Your task to perform on an android device: Open the phone app and click the voicemail tab. Image 0: 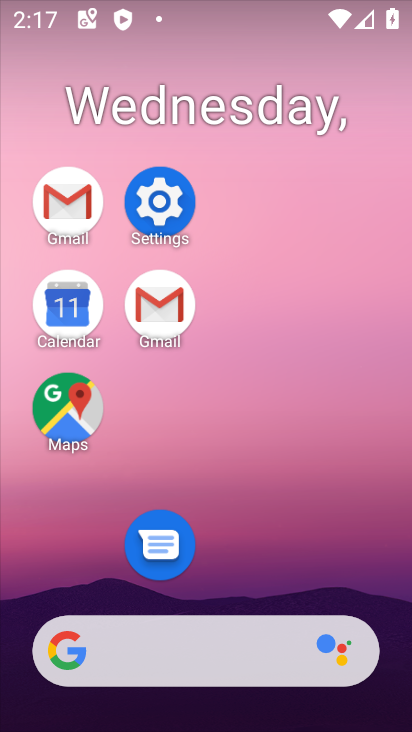
Step 0: drag from (287, 595) to (281, 234)
Your task to perform on an android device: Open the phone app and click the voicemail tab. Image 1: 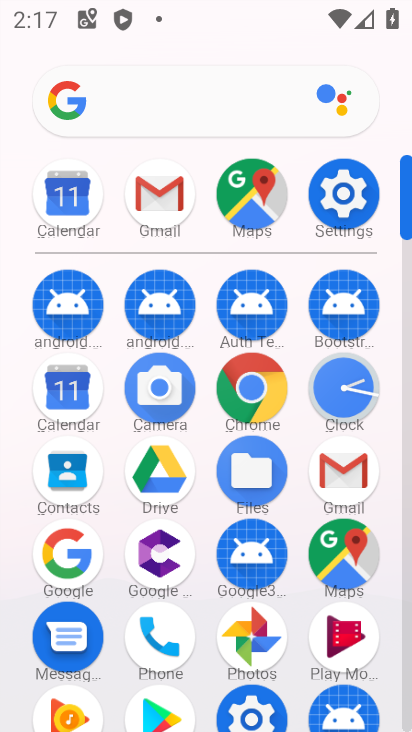
Step 1: click (159, 619)
Your task to perform on an android device: Open the phone app and click the voicemail tab. Image 2: 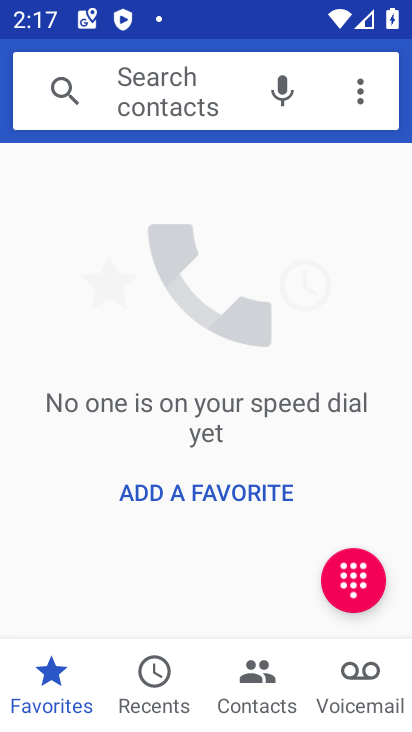
Step 2: click (372, 708)
Your task to perform on an android device: Open the phone app and click the voicemail tab. Image 3: 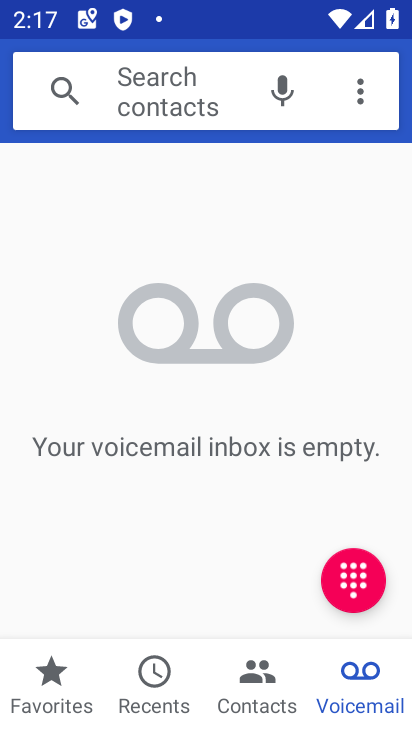
Step 3: task complete